Your task to perform on an android device: Open ESPN.com Image 0: 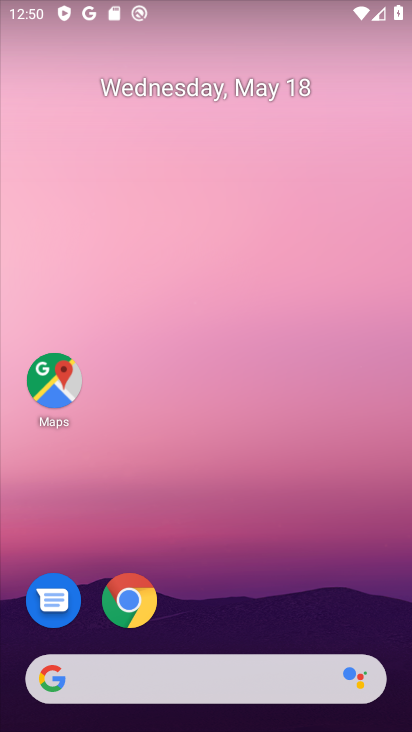
Step 0: click (129, 603)
Your task to perform on an android device: Open ESPN.com Image 1: 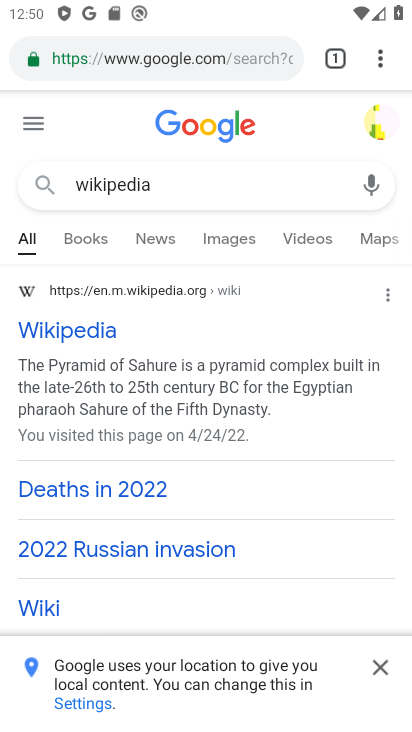
Step 1: click (171, 56)
Your task to perform on an android device: Open ESPN.com Image 2: 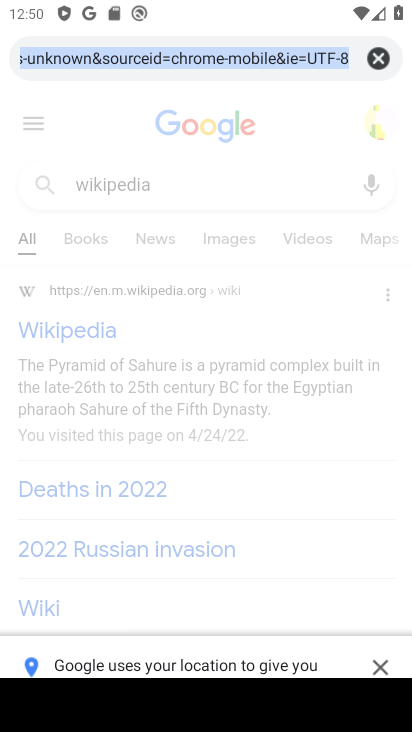
Step 2: type ""
Your task to perform on an android device: Open ESPN.com Image 3: 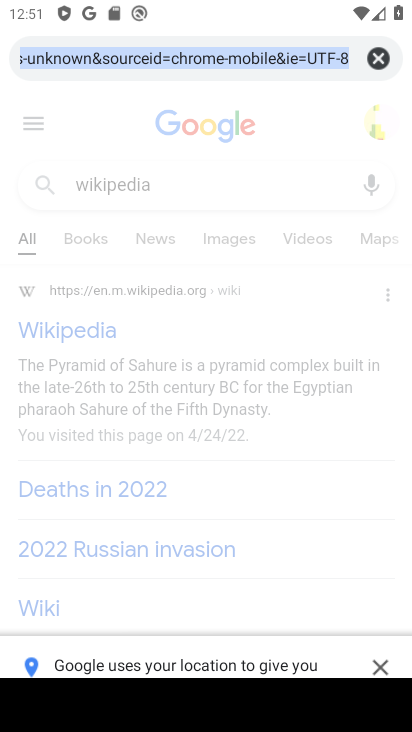
Step 3: type "ESPN.com"
Your task to perform on an android device: Open ESPN.com Image 4: 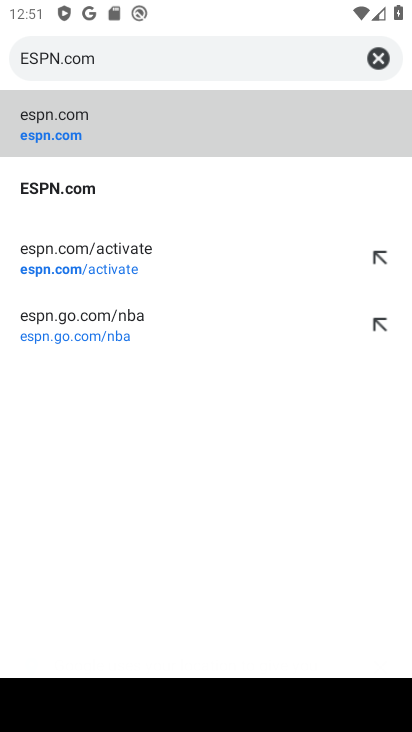
Step 4: click (74, 185)
Your task to perform on an android device: Open ESPN.com Image 5: 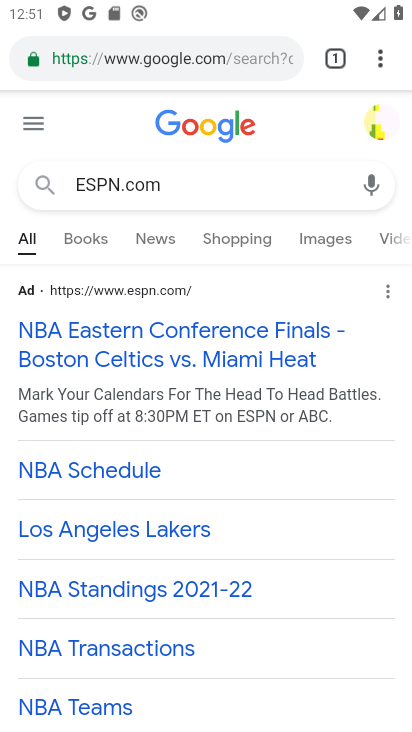
Step 5: task complete